Your task to perform on an android device: Open the calendar and show me this week's events Image 0: 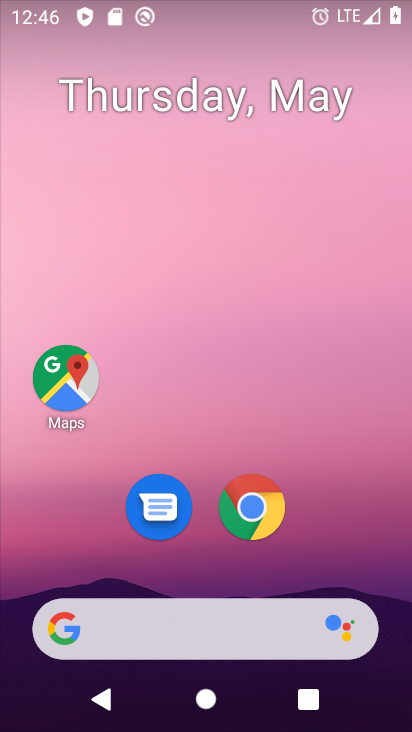
Step 0: drag from (207, 569) to (207, 191)
Your task to perform on an android device: Open the calendar and show me this week's events Image 1: 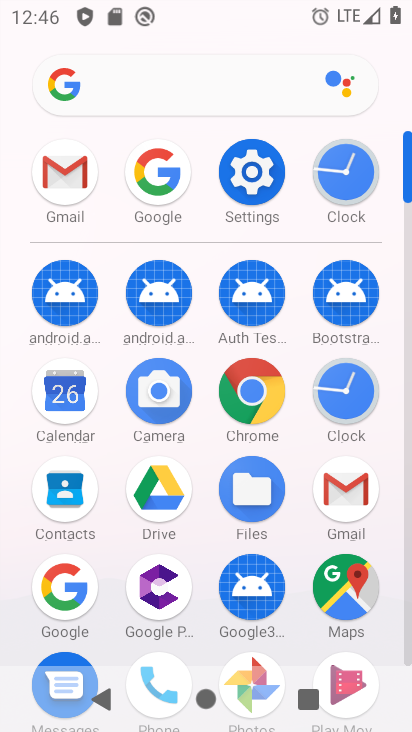
Step 1: click (62, 409)
Your task to perform on an android device: Open the calendar and show me this week's events Image 2: 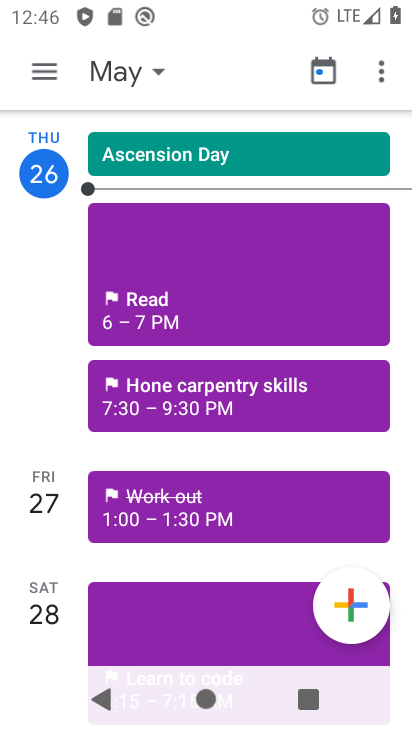
Step 2: click (145, 79)
Your task to perform on an android device: Open the calendar and show me this week's events Image 3: 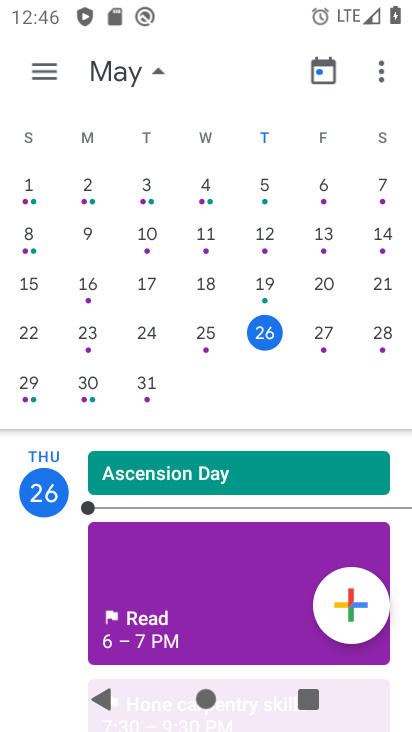
Step 3: drag from (242, 598) to (311, 391)
Your task to perform on an android device: Open the calendar and show me this week's events Image 4: 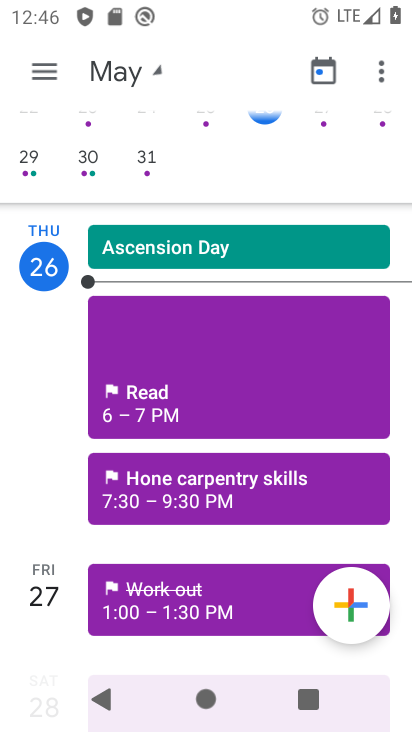
Step 4: drag from (272, 545) to (276, 343)
Your task to perform on an android device: Open the calendar and show me this week's events Image 5: 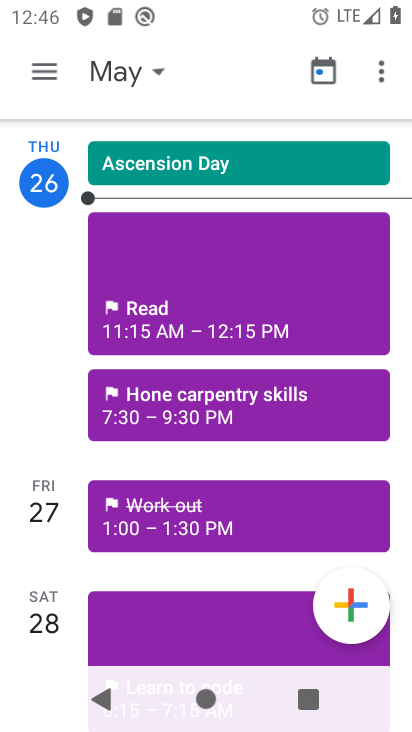
Step 5: drag from (258, 491) to (287, 309)
Your task to perform on an android device: Open the calendar and show me this week's events Image 6: 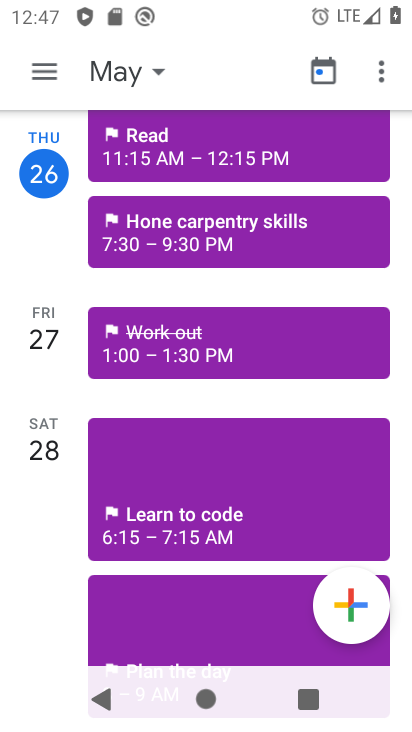
Step 6: click (159, 69)
Your task to perform on an android device: Open the calendar and show me this week's events Image 7: 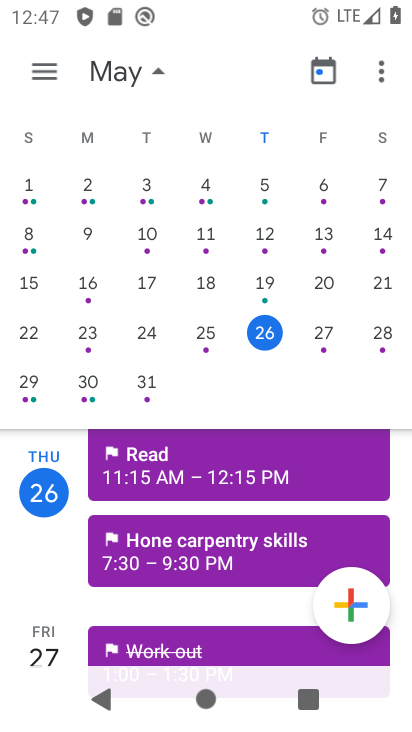
Step 7: click (159, 69)
Your task to perform on an android device: Open the calendar and show me this week's events Image 8: 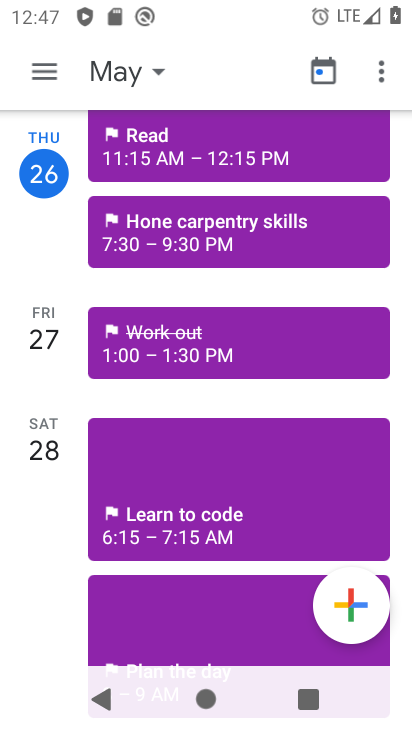
Step 8: task complete